Your task to perform on an android device: Set an alarm for 8pm Image 0: 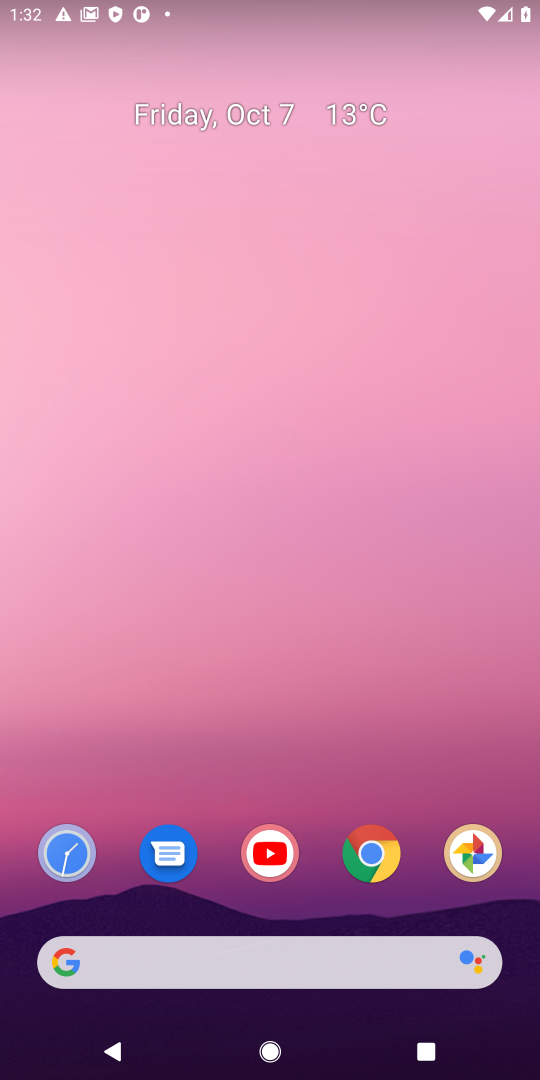
Step 0: drag from (220, 912) to (248, 106)
Your task to perform on an android device: Set an alarm for 8pm Image 1: 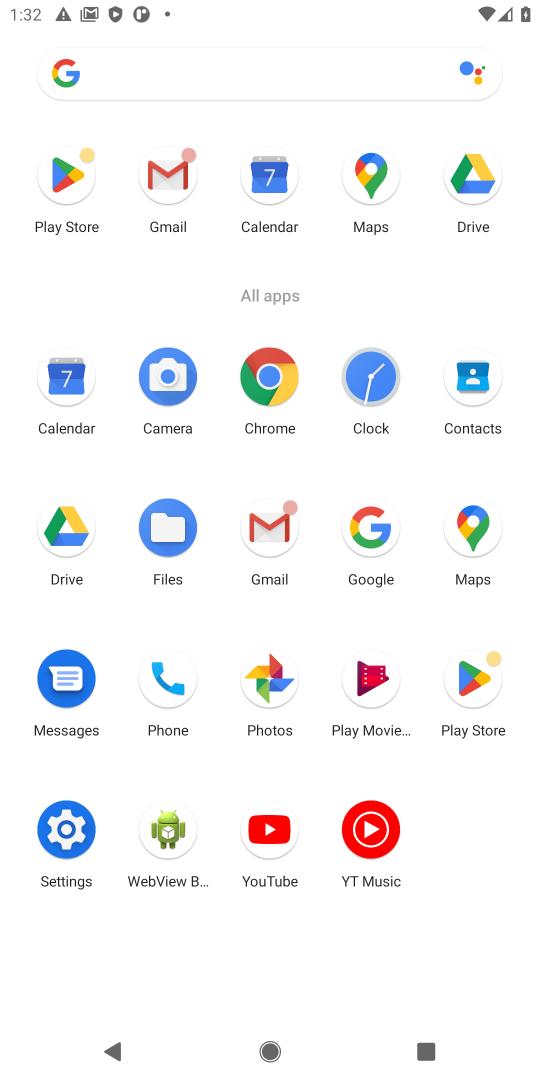
Step 1: click (368, 408)
Your task to perform on an android device: Set an alarm for 8pm Image 2: 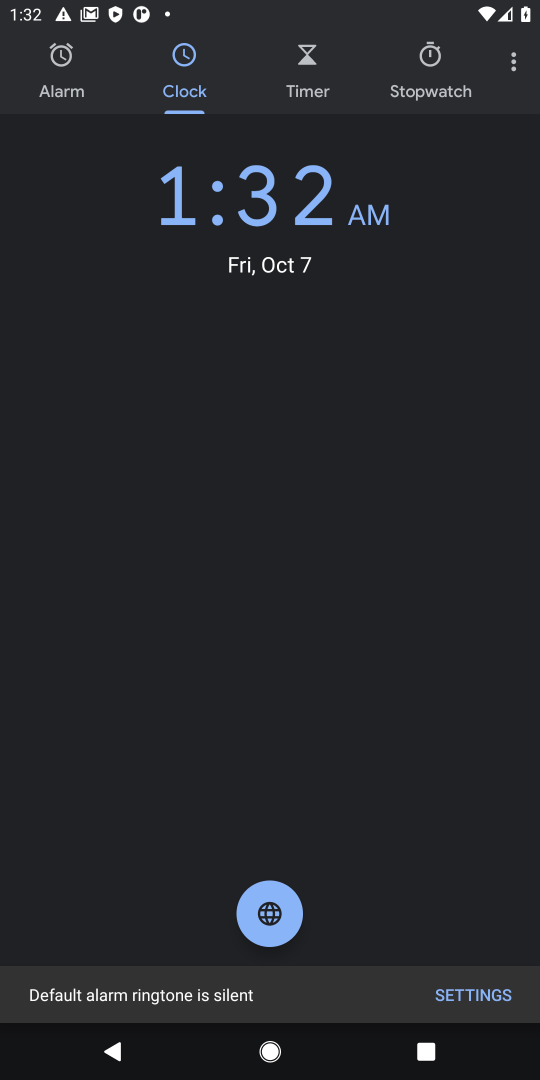
Step 2: click (62, 72)
Your task to perform on an android device: Set an alarm for 8pm Image 3: 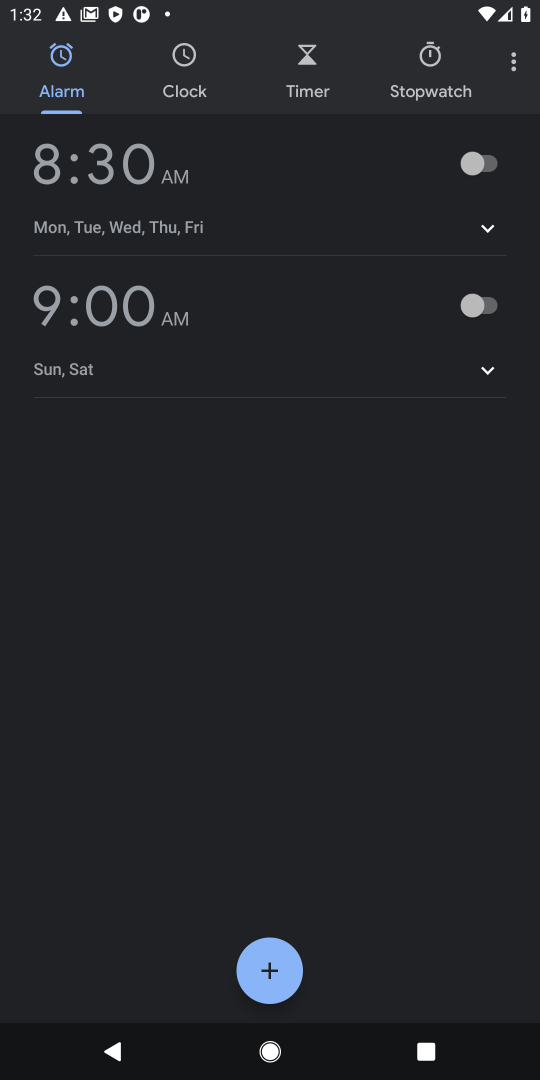
Step 3: click (283, 964)
Your task to perform on an android device: Set an alarm for 8pm Image 4: 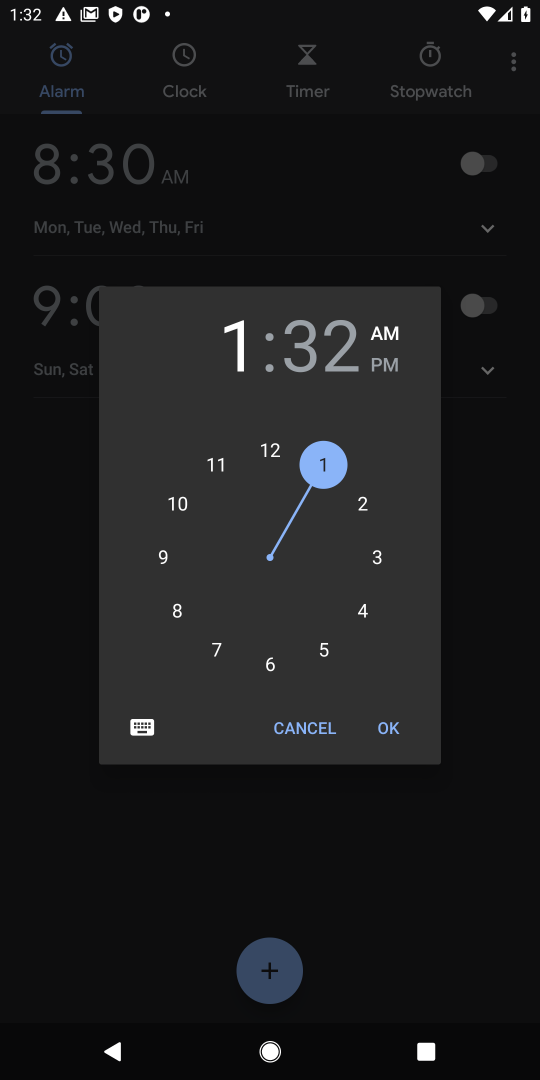
Step 4: drag from (317, 475) to (198, 634)
Your task to perform on an android device: Set an alarm for 8pm Image 5: 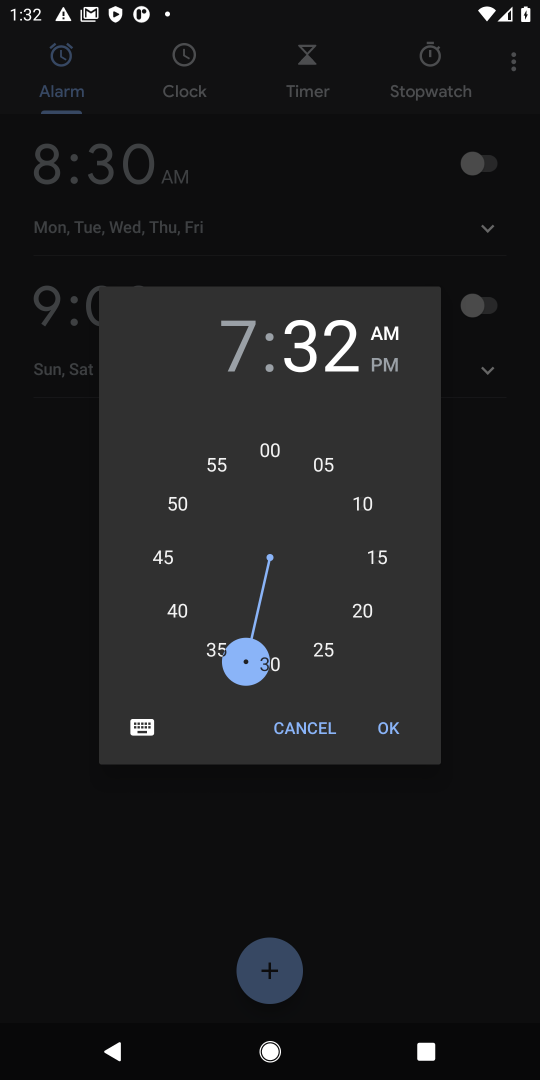
Step 5: click (181, 615)
Your task to perform on an android device: Set an alarm for 8pm Image 6: 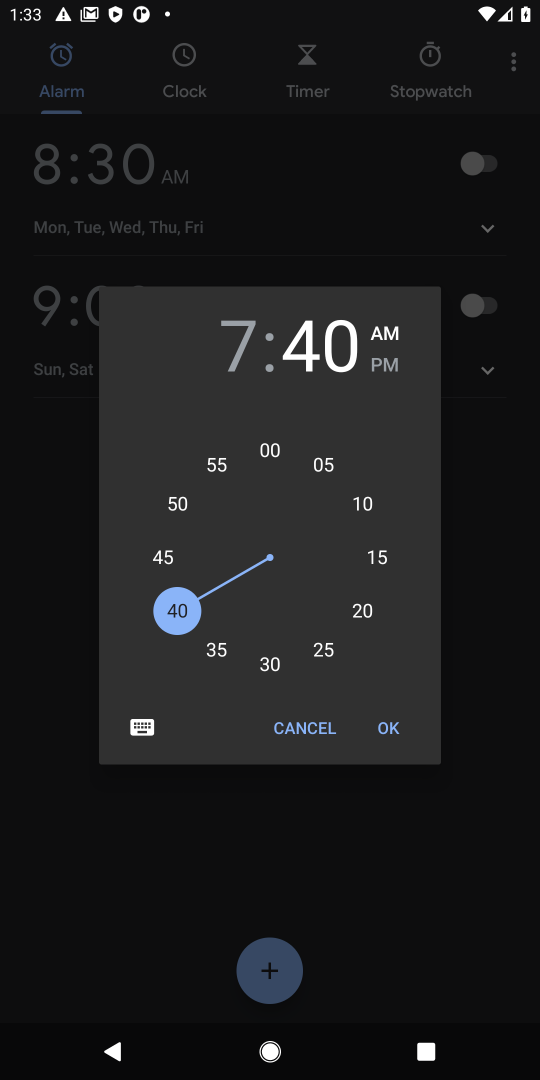
Step 6: click (229, 311)
Your task to perform on an android device: Set an alarm for 8pm Image 7: 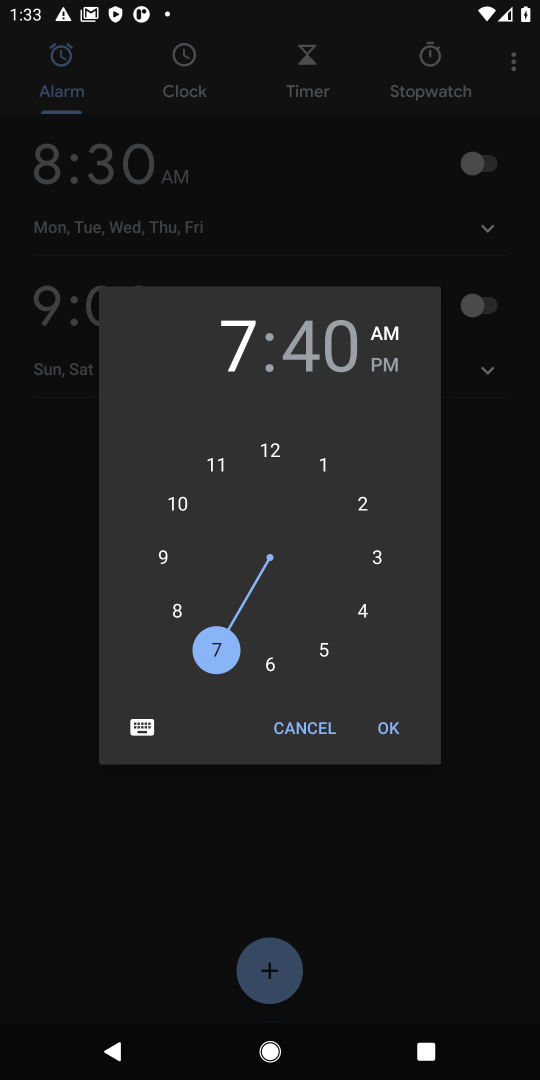
Step 7: click (185, 612)
Your task to perform on an android device: Set an alarm for 8pm Image 8: 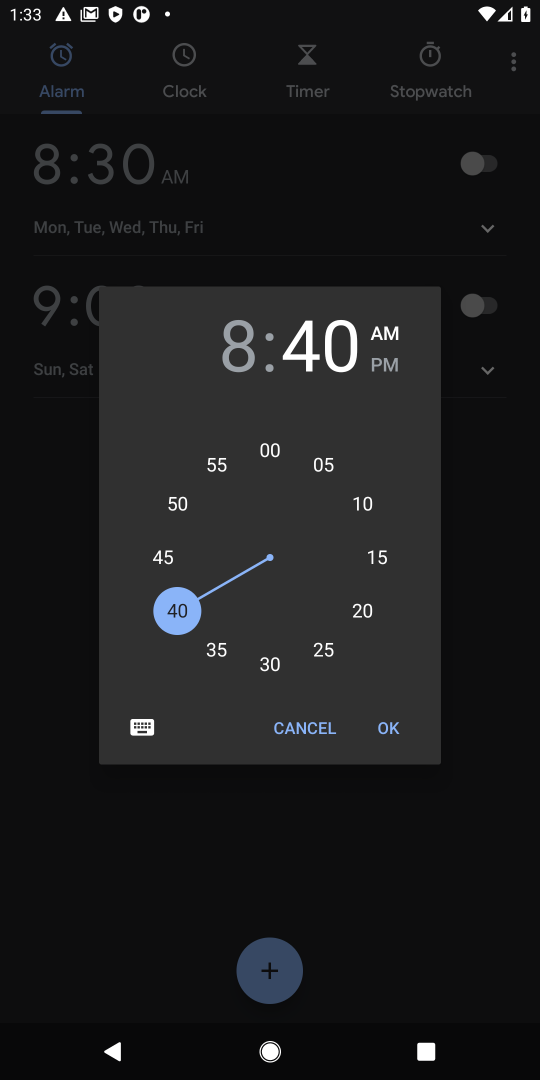
Step 8: click (324, 372)
Your task to perform on an android device: Set an alarm for 8pm Image 9: 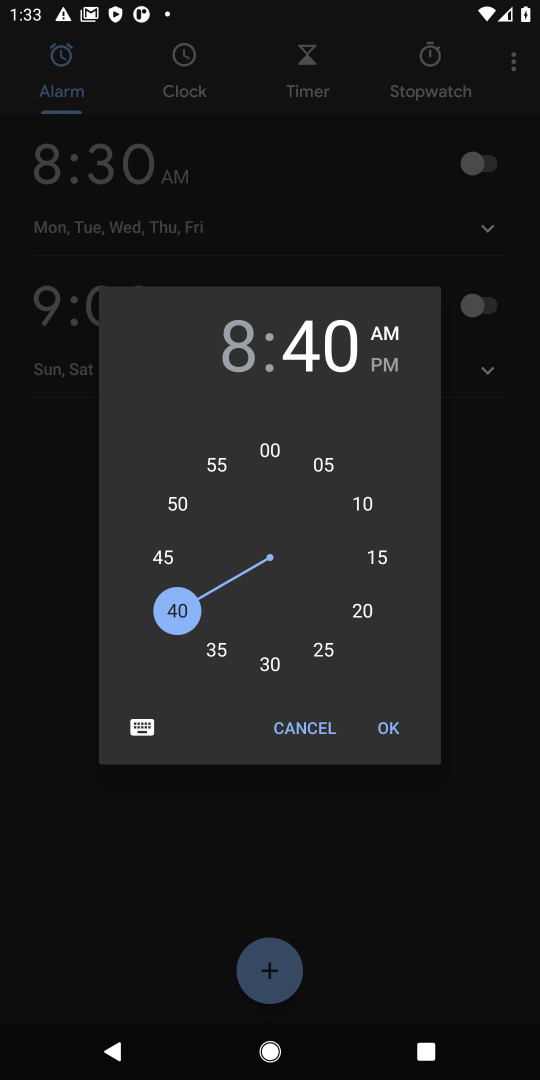
Step 9: click (279, 664)
Your task to perform on an android device: Set an alarm for 8pm Image 10: 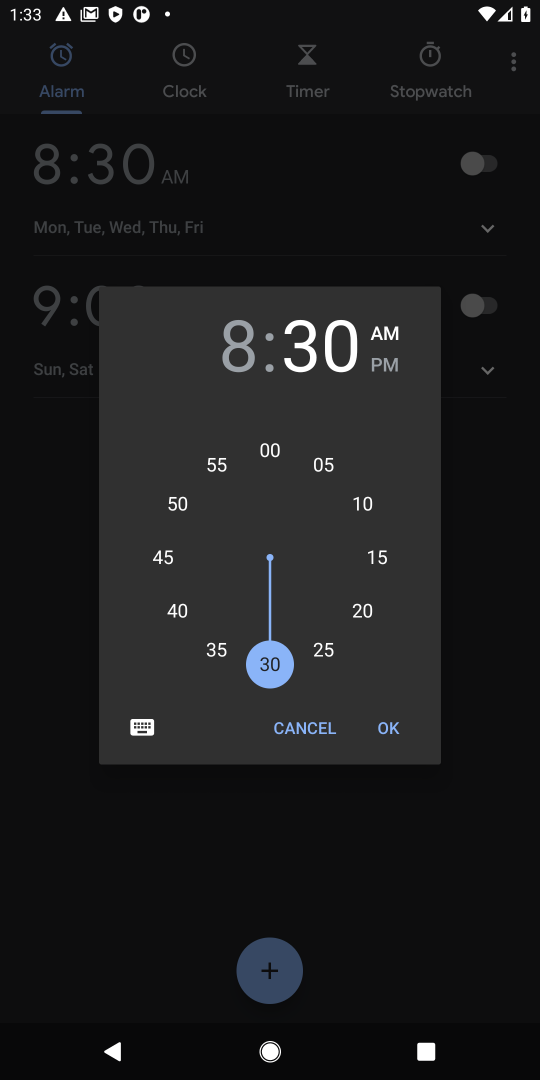
Step 10: click (400, 732)
Your task to perform on an android device: Set an alarm for 8pm Image 11: 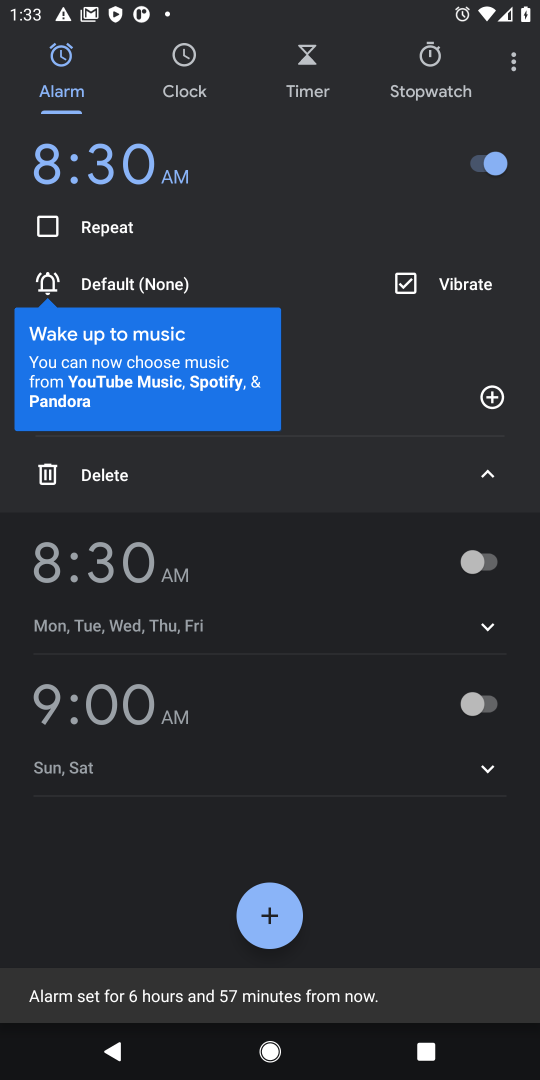
Step 11: task complete